Your task to perform on an android device: change keyboard looks Image 0: 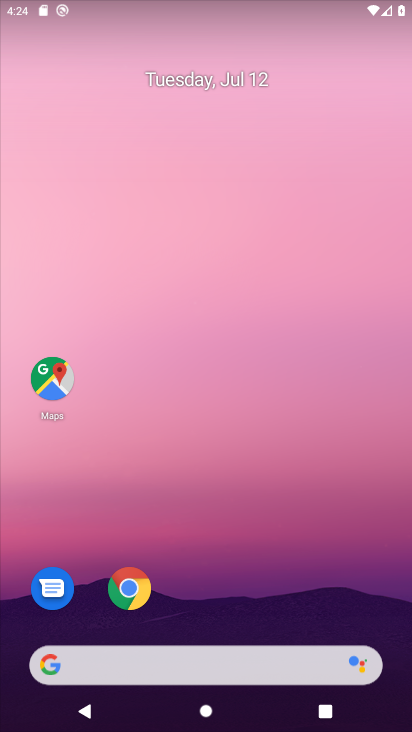
Step 0: drag from (294, 580) to (382, 5)
Your task to perform on an android device: change keyboard looks Image 1: 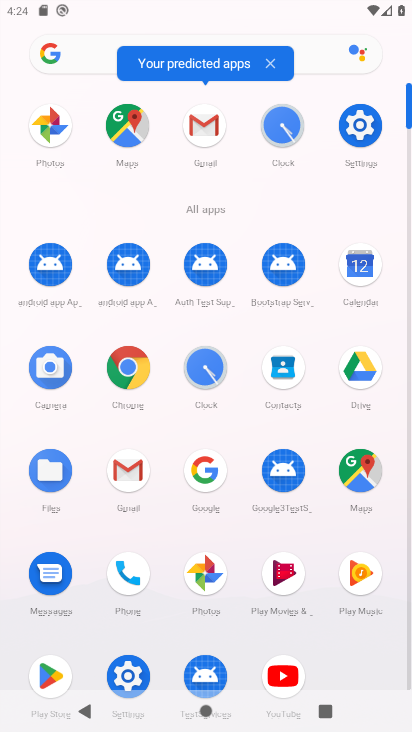
Step 1: click (368, 121)
Your task to perform on an android device: change keyboard looks Image 2: 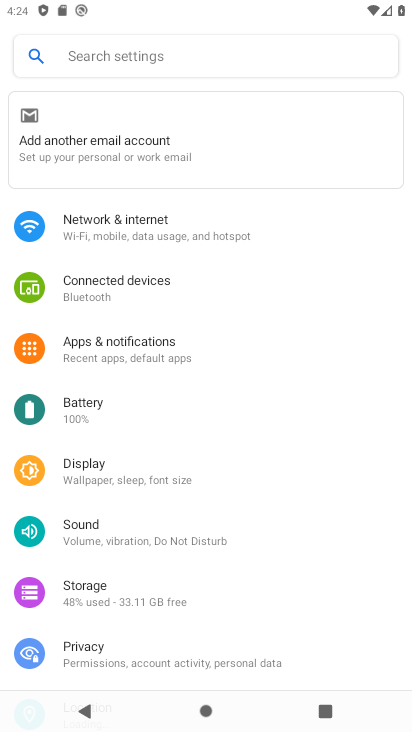
Step 2: drag from (209, 612) to (202, 214)
Your task to perform on an android device: change keyboard looks Image 3: 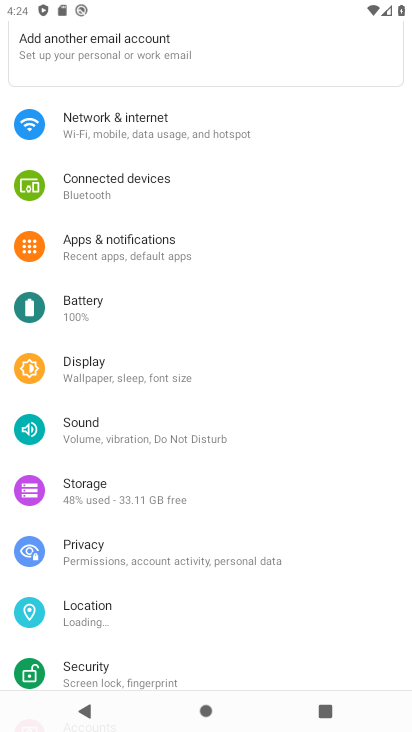
Step 3: drag from (209, 588) to (129, 60)
Your task to perform on an android device: change keyboard looks Image 4: 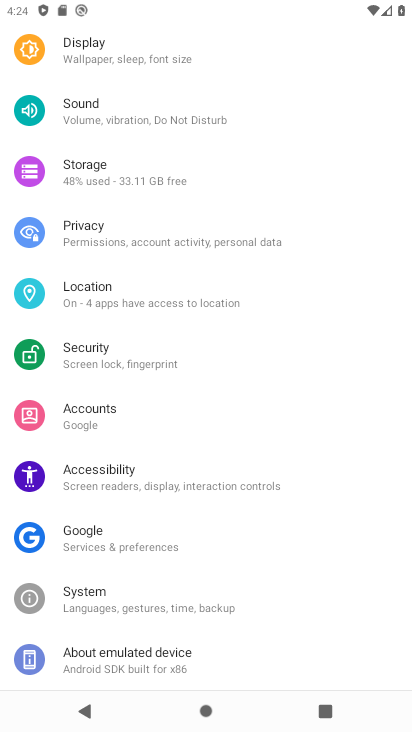
Step 4: click (170, 606)
Your task to perform on an android device: change keyboard looks Image 5: 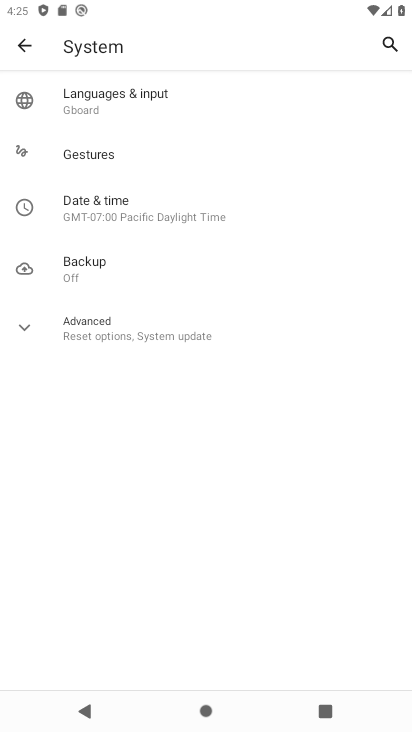
Step 5: click (94, 99)
Your task to perform on an android device: change keyboard looks Image 6: 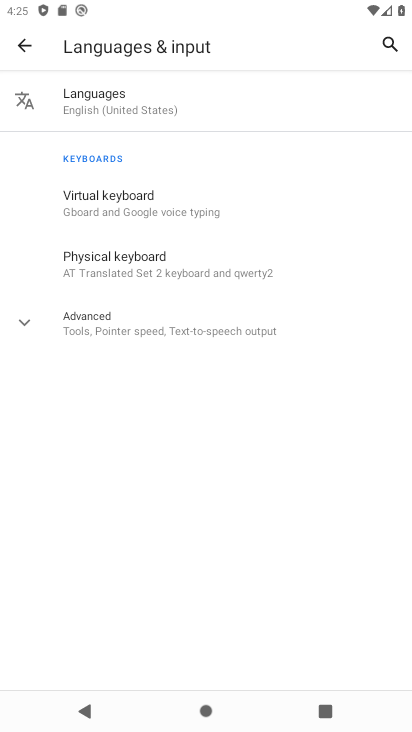
Step 6: click (125, 205)
Your task to perform on an android device: change keyboard looks Image 7: 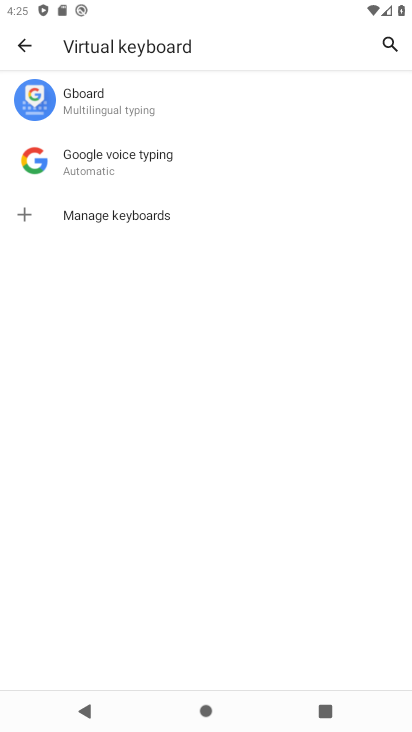
Step 7: click (149, 107)
Your task to perform on an android device: change keyboard looks Image 8: 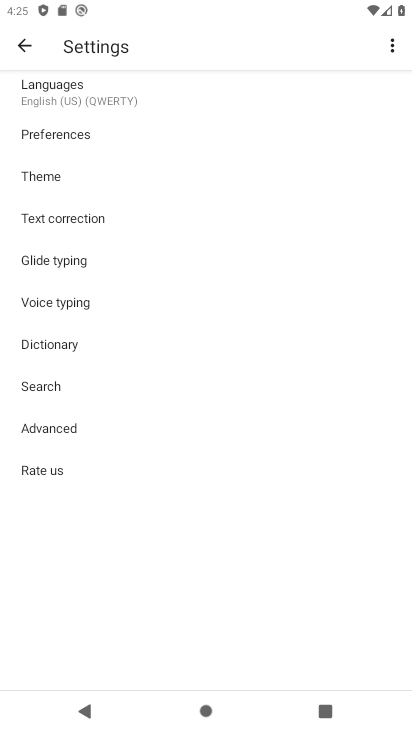
Step 8: click (42, 179)
Your task to perform on an android device: change keyboard looks Image 9: 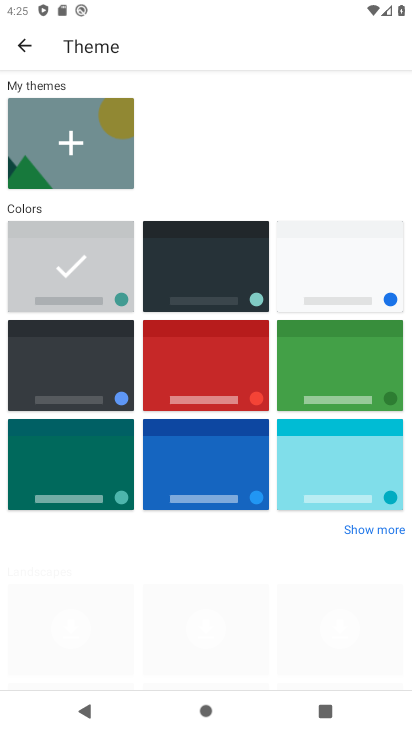
Step 9: click (179, 279)
Your task to perform on an android device: change keyboard looks Image 10: 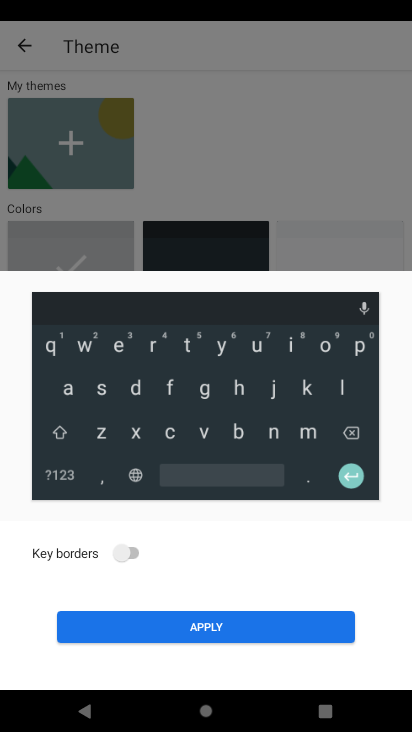
Step 10: click (277, 623)
Your task to perform on an android device: change keyboard looks Image 11: 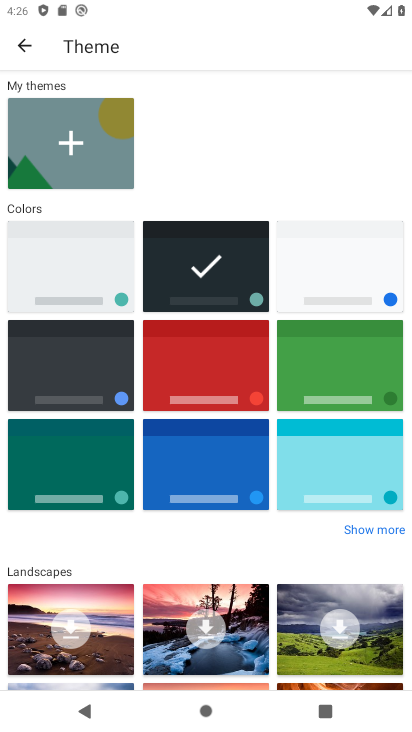
Step 11: task complete